Your task to perform on an android device: change the upload size in google photos Image 0: 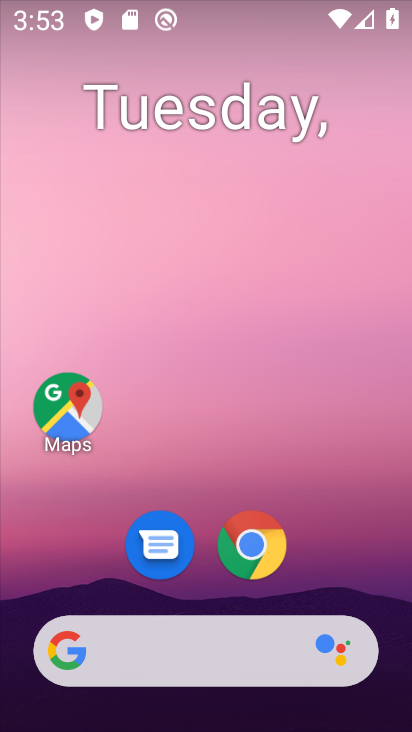
Step 0: drag from (199, 589) to (244, 265)
Your task to perform on an android device: change the upload size in google photos Image 1: 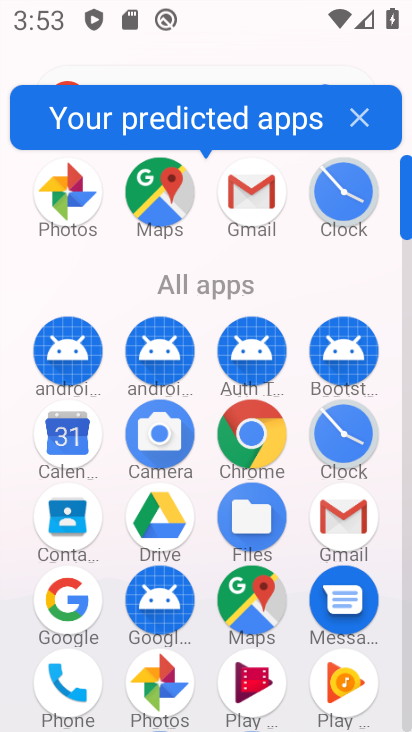
Step 1: drag from (200, 550) to (233, 198)
Your task to perform on an android device: change the upload size in google photos Image 2: 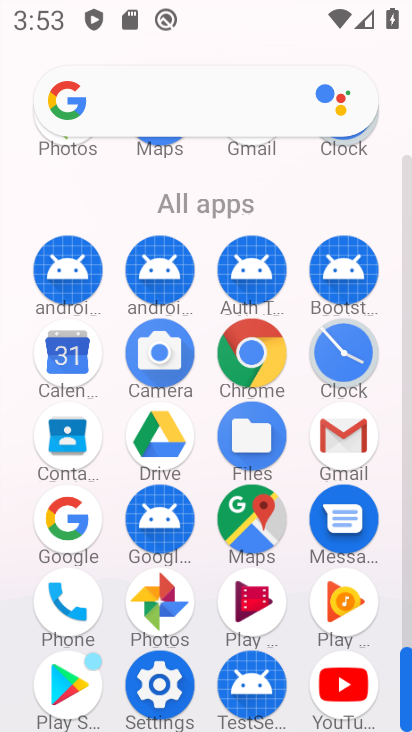
Step 2: click (170, 599)
Your task to perform on an android device: change the upload size in google photos Image 3: 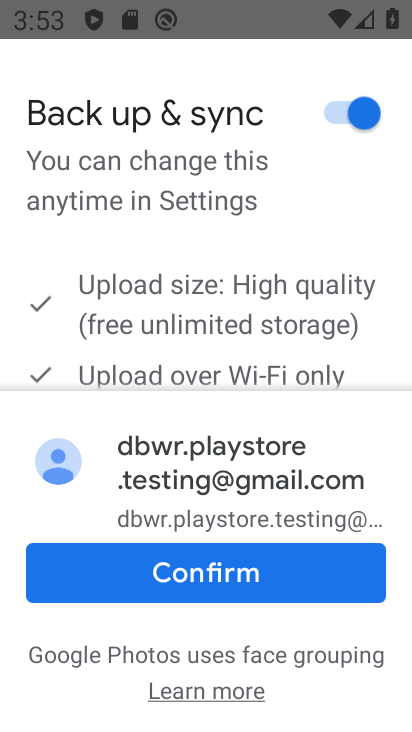
Step 3: click (208, 574)
Your task to perform on an android device: change the upload size in google photos Image 4: 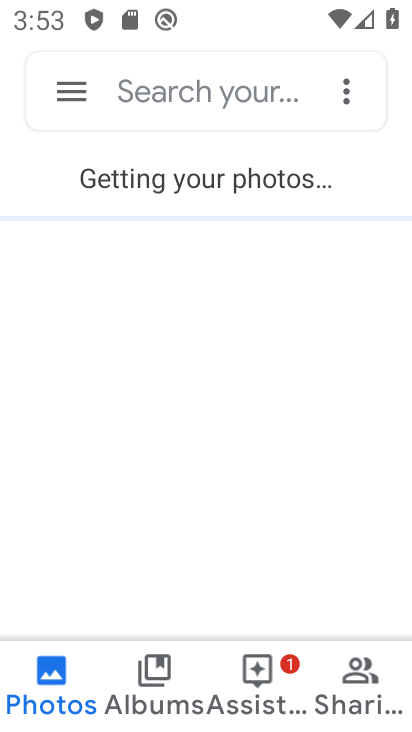
Step 4: click (61, 93)
Your task to perform on an android device: change the upload size in google photos Image 5: 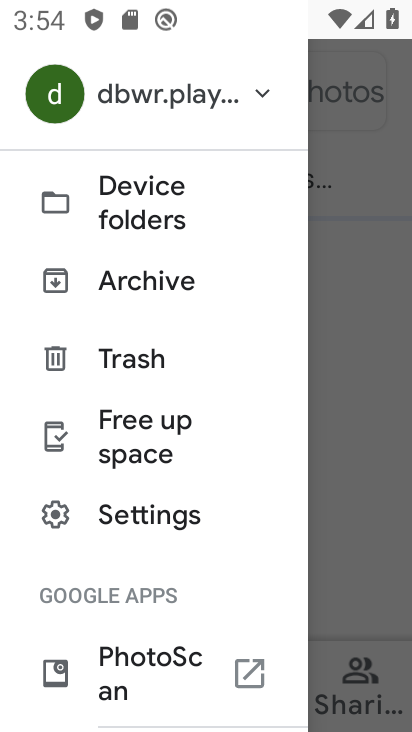
Step 5: click (135, 523)
Your task to perform on an android device: change the upload size in google photos Image 6: 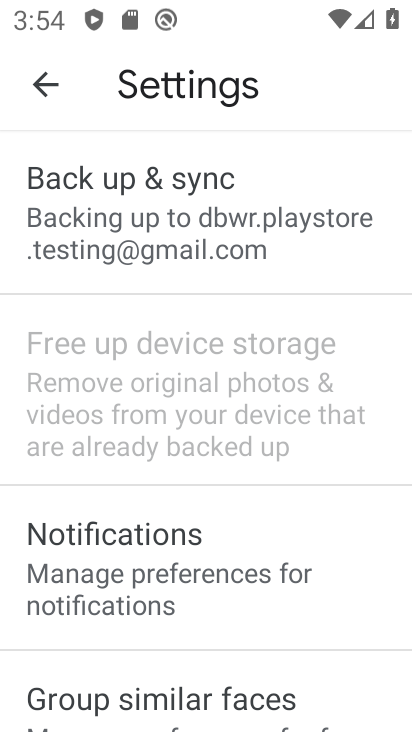
Step 6: click (176, 228)
Your task to perform on an android device: change the upload size in google photos Image 7: 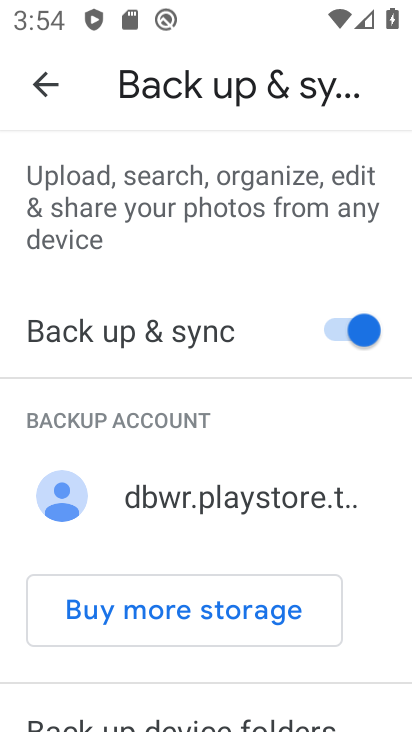
Step 7: drag from (229, 510) to (283, 192)
Your task to perform on an android device: change the upload size in google photos Image 8: 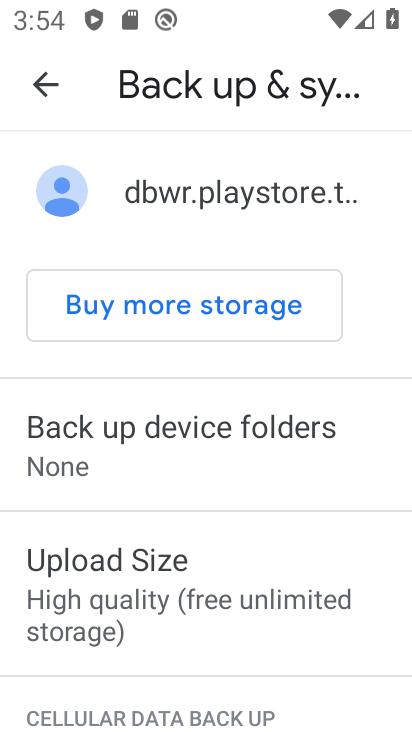
Step 8: drag from (175, 629) to (216, 315)
Your task to perform on an android device: change the upload size in google photos Image 9: 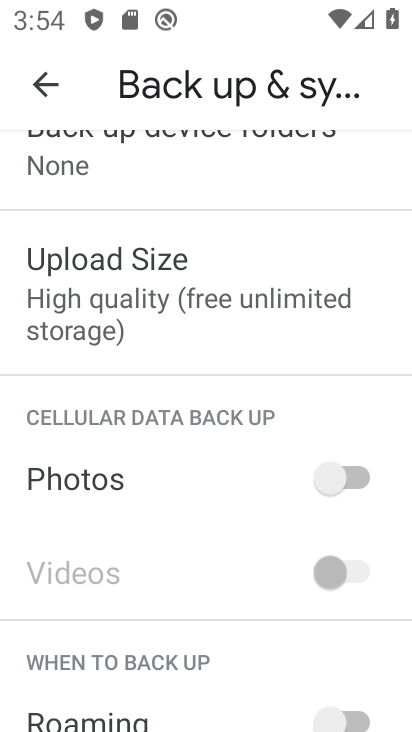
Step 9: click (124, 284)
Your task to perform on an android device: change the upload size in google photos Image 10: 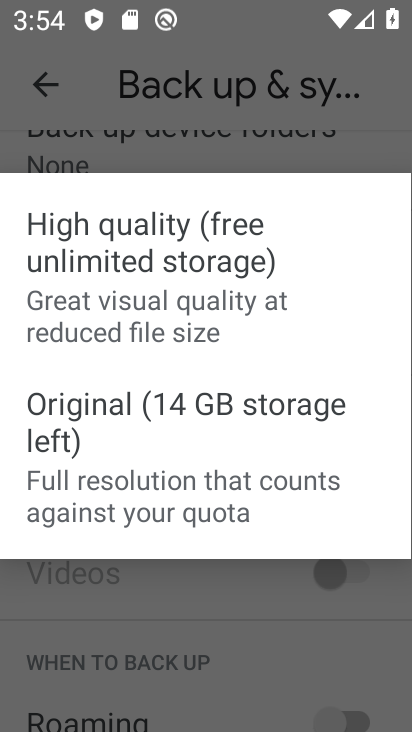
Step 10: click (117, 449)
Your task to perform on an android device: change the upload size in google photos Image 11: 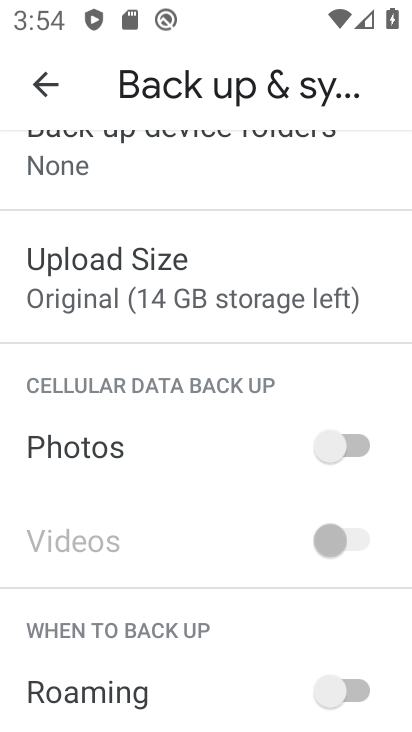
Step 11: task complete